Your task to perform on an android device: Search for seafood restaurants on Google Maps Image 0: 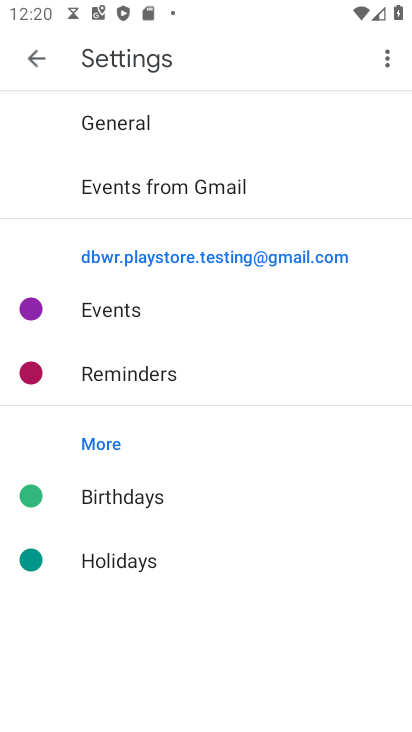
Step 0: press home button
Your task to perform on an android device: Search for seafood restaurants on Google Maps Image 1: 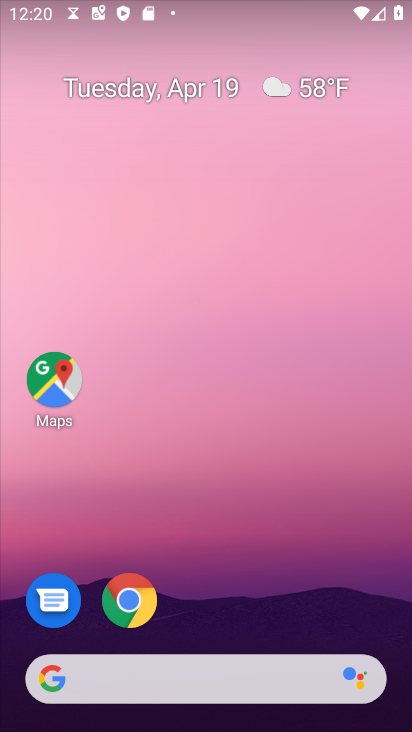
Step 1: click (77, 373)
Your task to perform on an android device: Search for seafood restaurants on Google Maps Image 2: 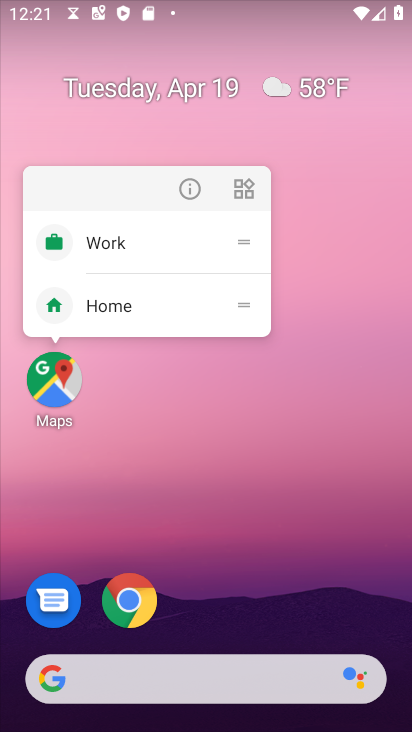
Step 2: click (249, 427)
Your task to perform on an android device: Search for seafood restaurants on Google Maps Image 3: 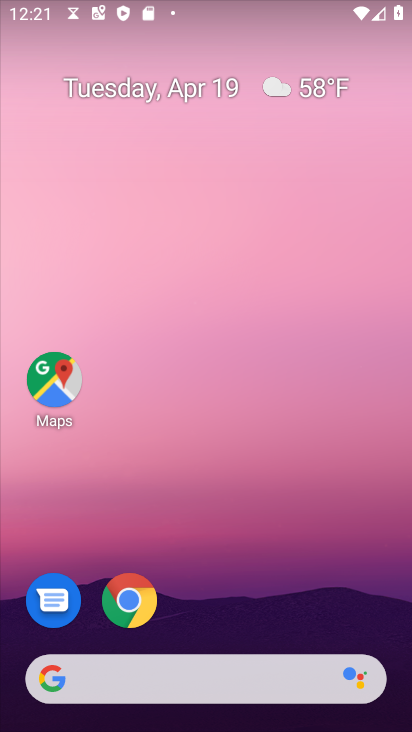
Step 3: click (49, 387)
Your task to perform on an android device: Search for seafood restaurants on Google Maps Image 4: 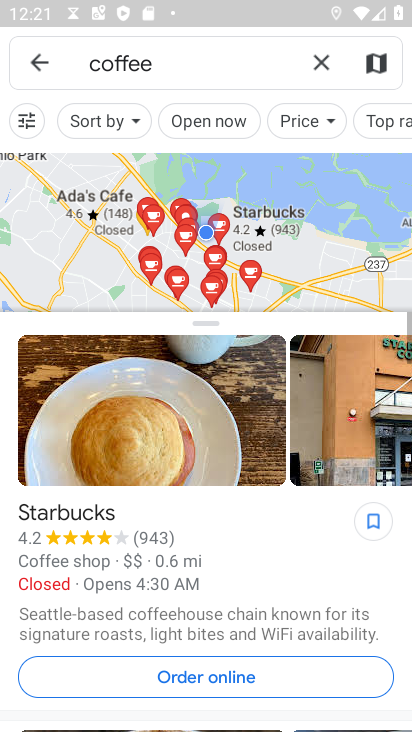
Step 4: click (326, 67)
Your task to perform on an android device: Search for seafood restaurants on Google Maps Image 5: 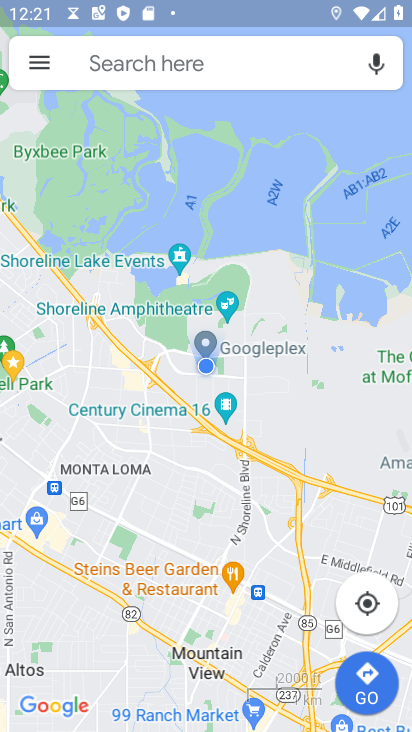
Step 5: click (212, 50)
Your task to perform on an android device: Search for seafood restaurants on Google Maps Image 6: 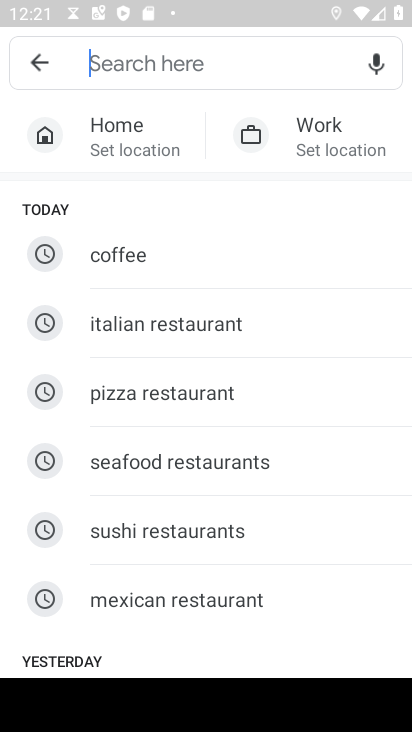
Step 6: click (197, 479)
Your task to perform on an android device: Search for seafood restaurants on Google Maps Image 7: 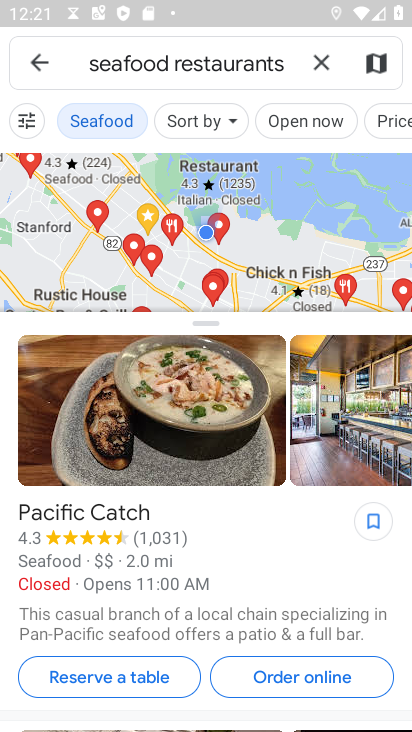
Step 7: task complete